Your task to perform on an android device: Go to location settings Image 0: 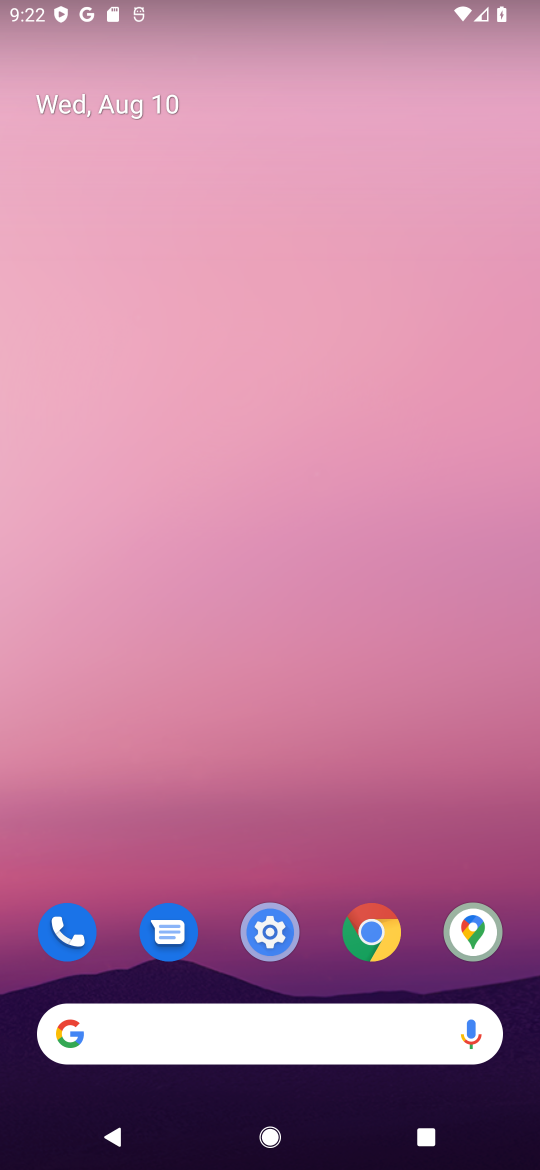
Step 0: click (264, 929)
Your task to perform on an android device: Go to location settings Image 1: 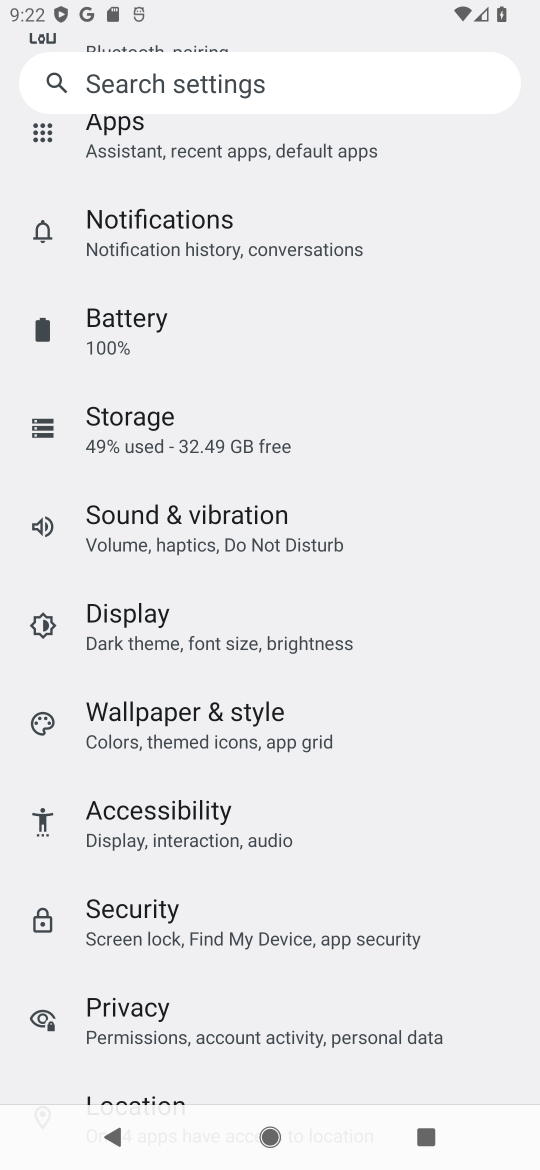
Step 1: drag from (349, 823) to (309, 164)
Your task to perform on an android device: Go to location settings Image 2: 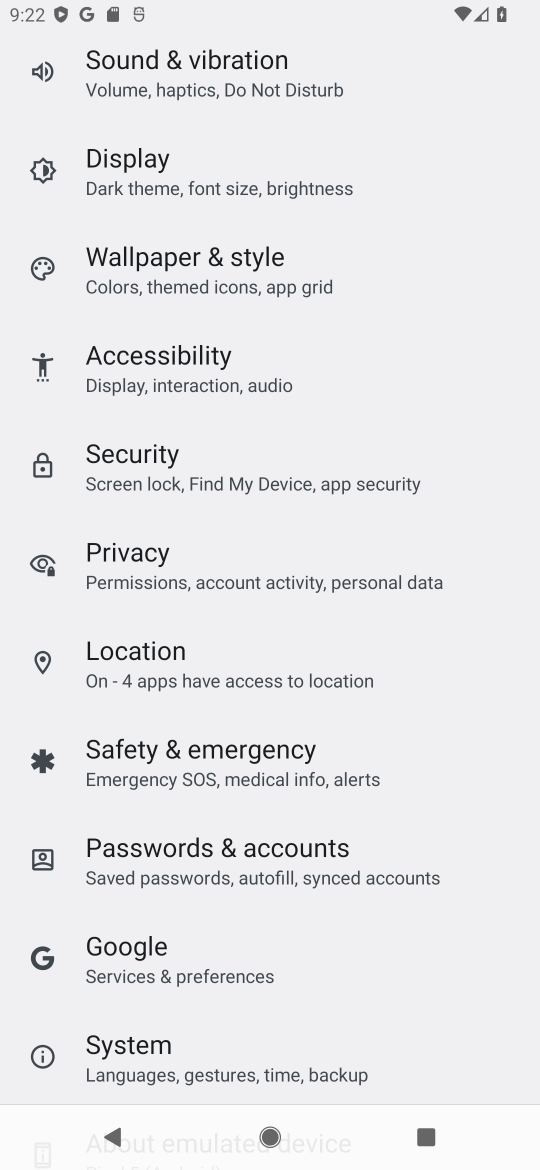
Step 2: click (144, 645)
Your task to perform on an android device: Go to location settings Image 3: 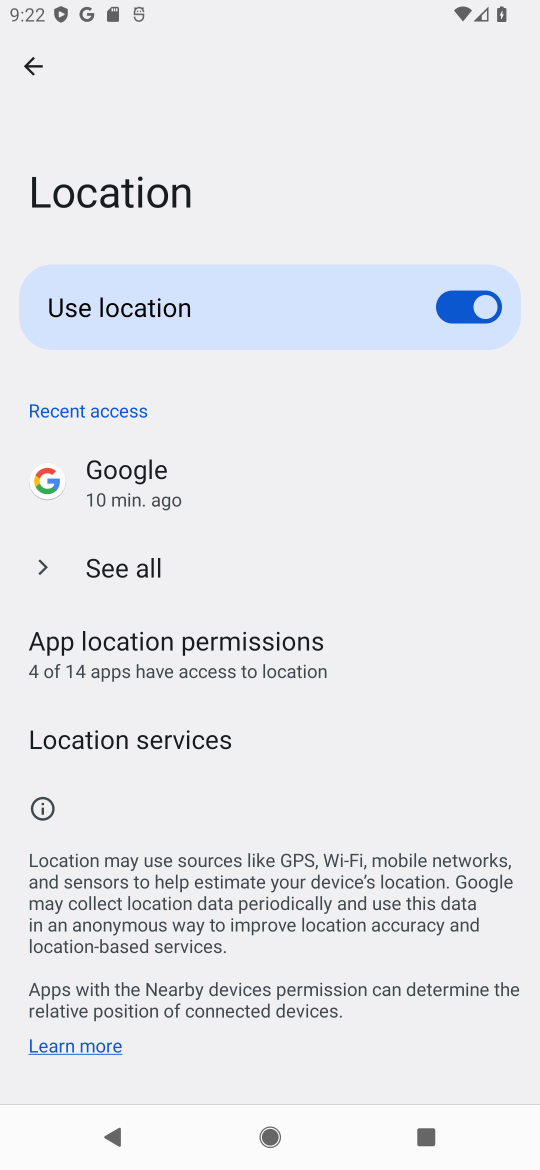
Step 3: task complete